Your task to perform on an android device: turn smart compose on in the gmail app Image 0: 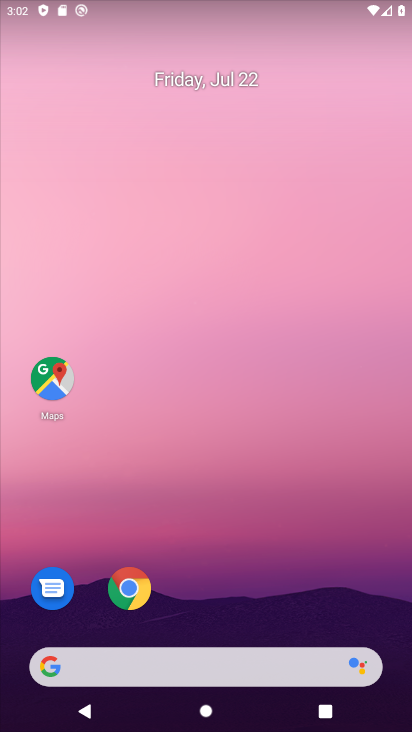
Step 0: drag from (216, 645) to (223, 263)
Your task to perform on an android device: turn smart compose on in the gmail app Image 1: 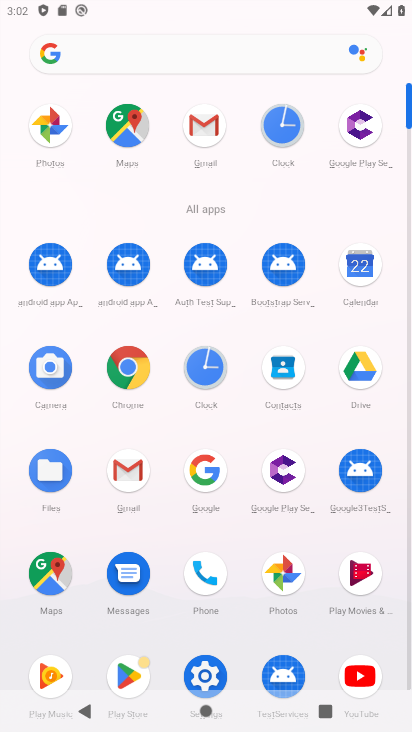
Step 1: click (205, 128)
Your task to perform on an android device: turn smart compose on in the gmail app Image 2: 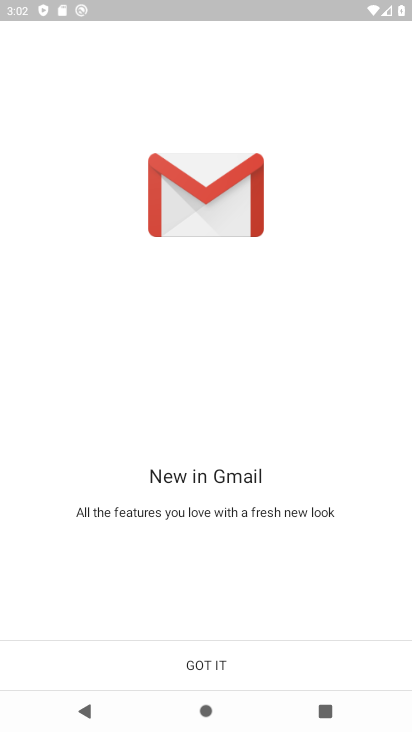
Step 2: click (226, 661)
Your task to perform on an android device: turn smart compose on in the gmail app Image 3: 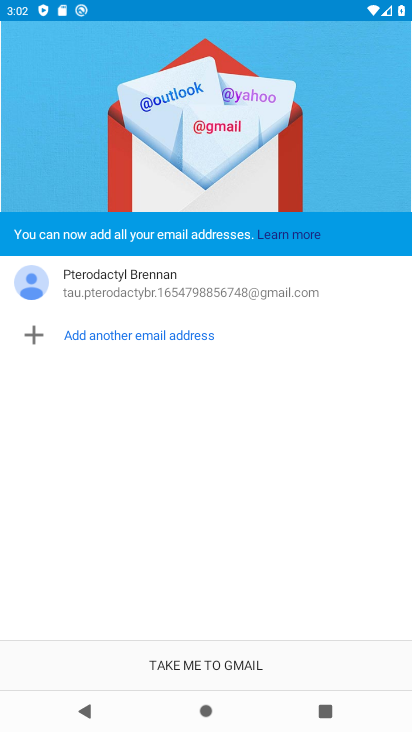
Step 3: click (226, 661)
Your task to perform on an android device: turn smart compose on in the gmail app Image 4: 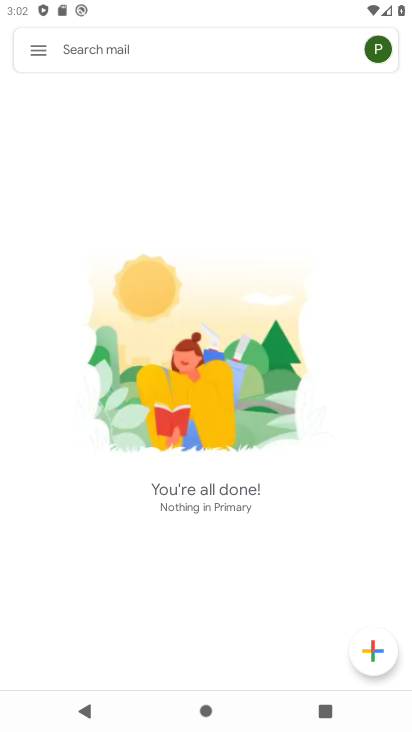
Step 4: click (35, 48)
Your task to perform on an android device: turn smart compose on in the gmail app Image 5: 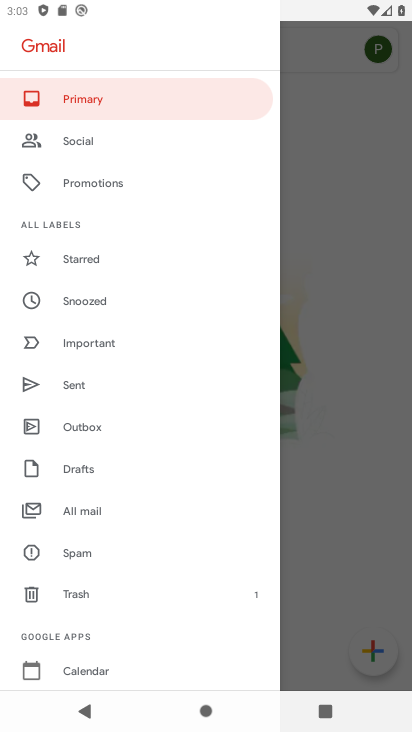
Step 5: drag from (85, 584) to (85, 268)
Your task to perform on an android device: turn smart compose on in the gmail app Image 6: 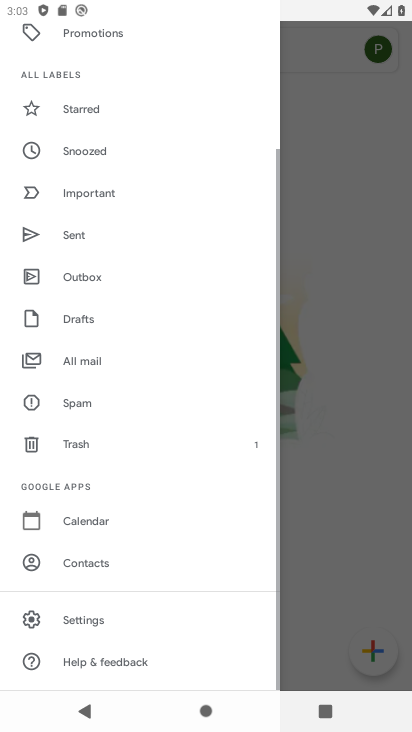
Step 6: click (76, 612)
Your task to perform on an android device: turn smart compose on in the gmail app Image 7: 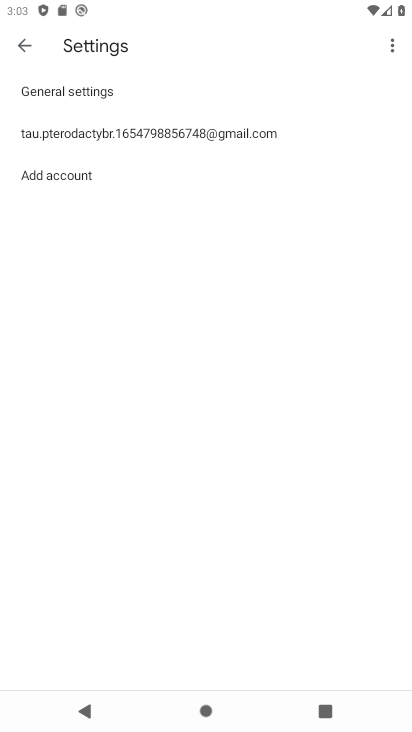
Step 7: click (99, 131)
Your task to perform on an android device: turn smart compose on in the gmail app Image 8: 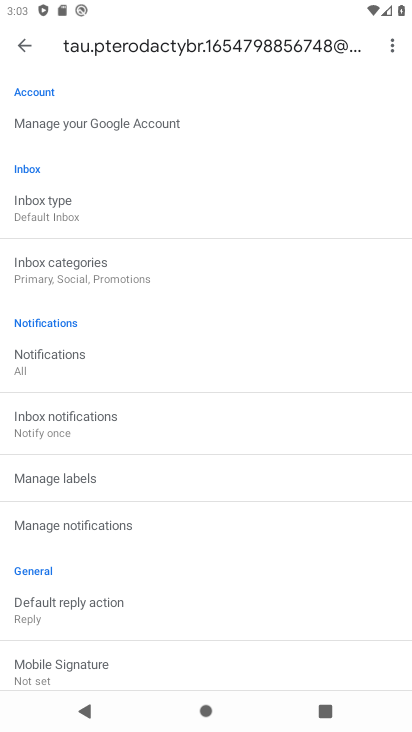
Step 8: task complete